Your task to perform on an android device: Open Maps and search for coffee Image 0: 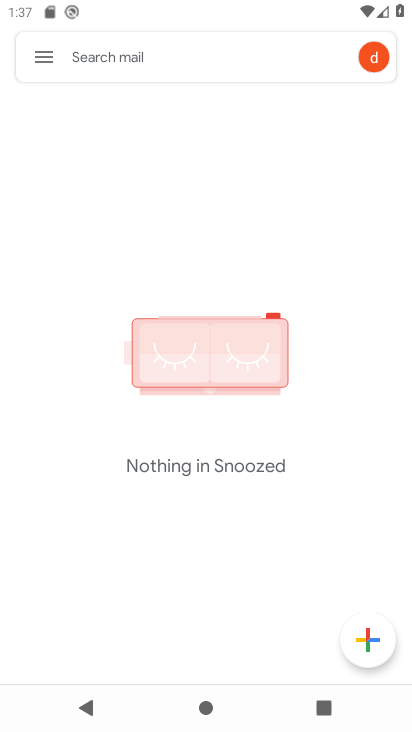
Step 0: press home button
Your task to perform on an android device: Open Maps and search for coffee Image 1: 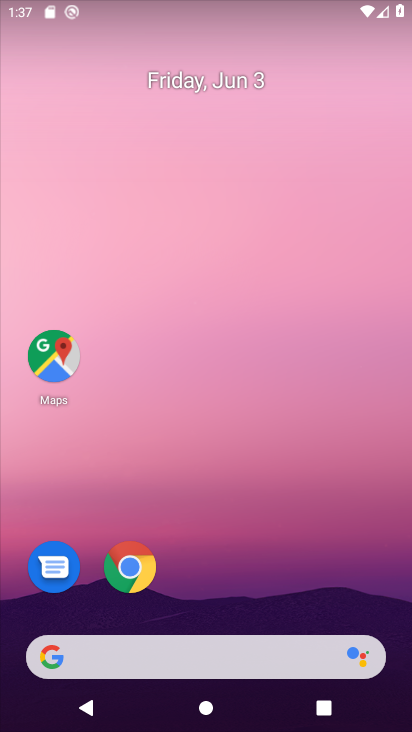
Step 1: click (51, 345)
Your task to perform on an android device: Open Maps and search for coffee Image 2: 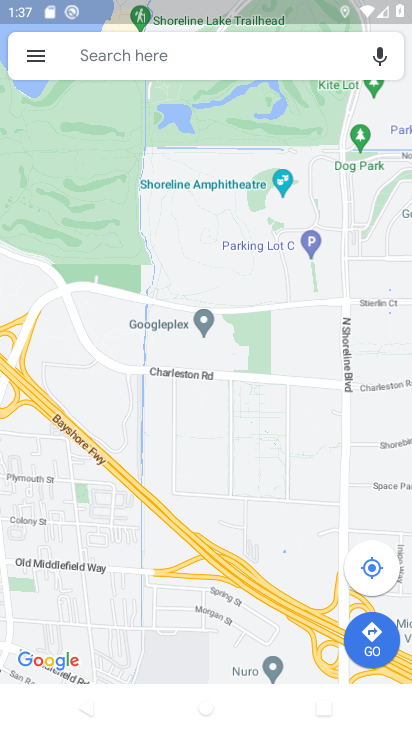
Step 2: click (180, 49)
Your task to perform on an android device: Open Maps and search for coffee Image 3: 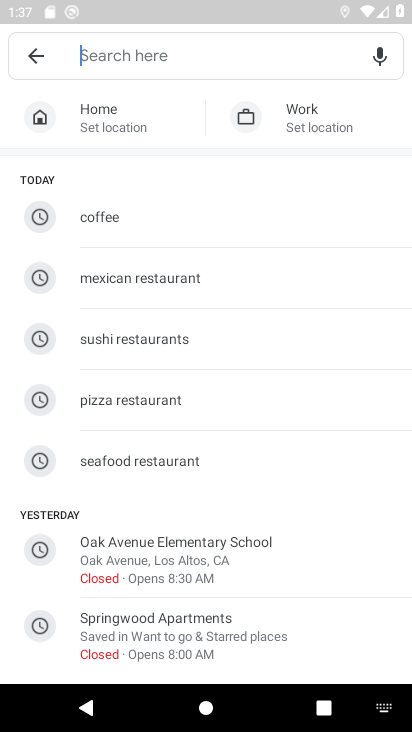
Step 3: click (151, 209)
Your task to perform on an android device: Open Maps and search for coffee Image 4: 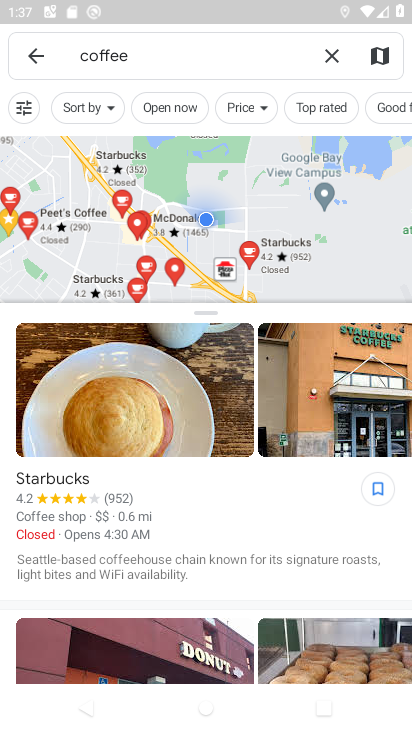
Step 4: task complete